Your task to perform on an android device: delete the emails in spam in the gmail app Image 0: 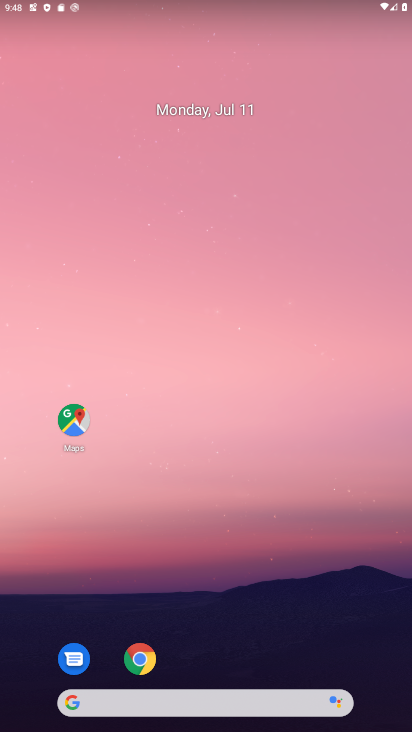
Step 0: drag from (327, 655) to (152, 6)
Your task to perform on an android device: delete the emails in spam in the gmail app Image 1: 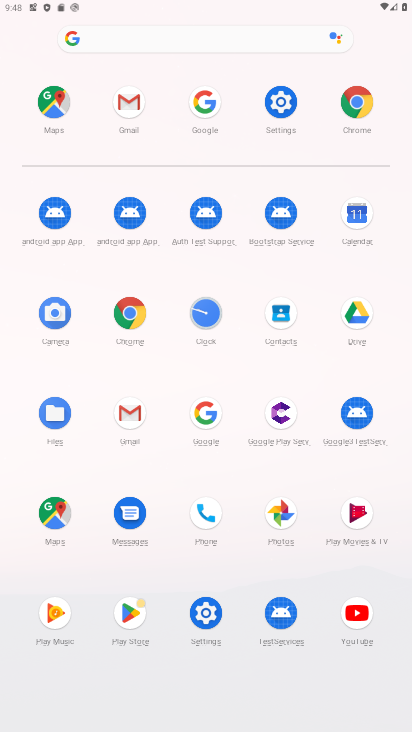
Step 1: click (137, 106)
Your task to perform on an android device: delete the emails in spam in the gmail app Image 2: 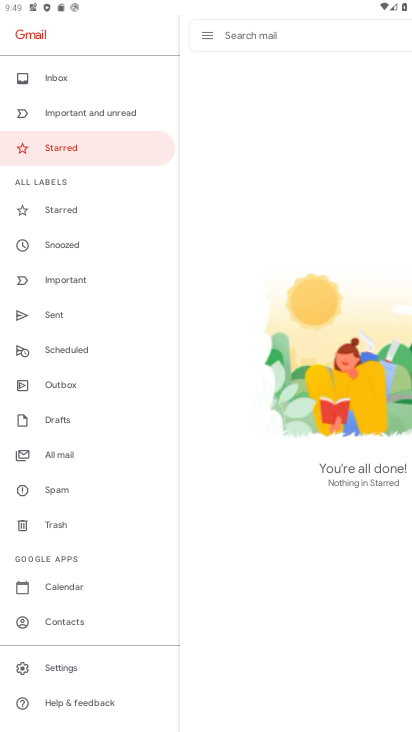
Step 2: click (67, 493)
Your task to perform on an android device: delete the emails in spam in the gmail app Image 3: 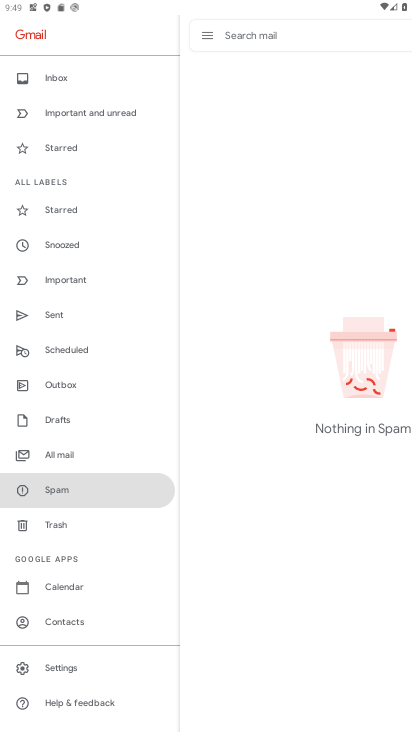
Step 3: task complete